Your task to perform on an android device: open a bookmark in the chrome app Image 0: 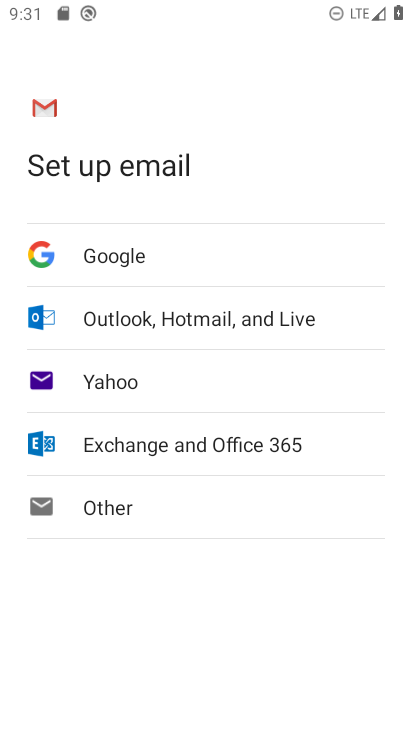
Step 0: press home button
Your task to perform on an android device: open a bookmark in the chrome app Image 1: 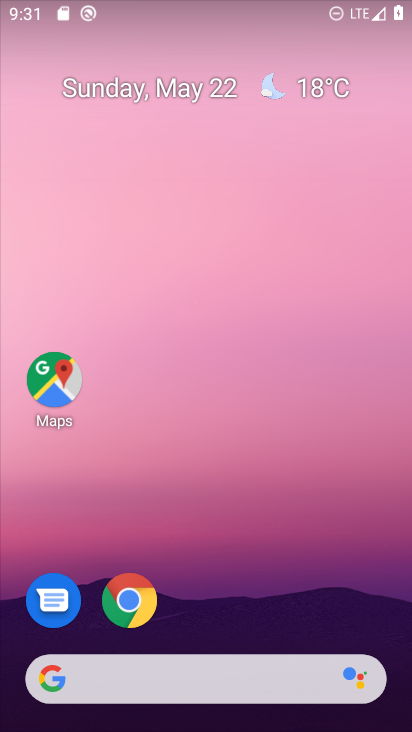
Step 1: drag from (392, 662) to (234, 53)
Your task to perform on an android device: open a bookmark in the chrome app Image 2: 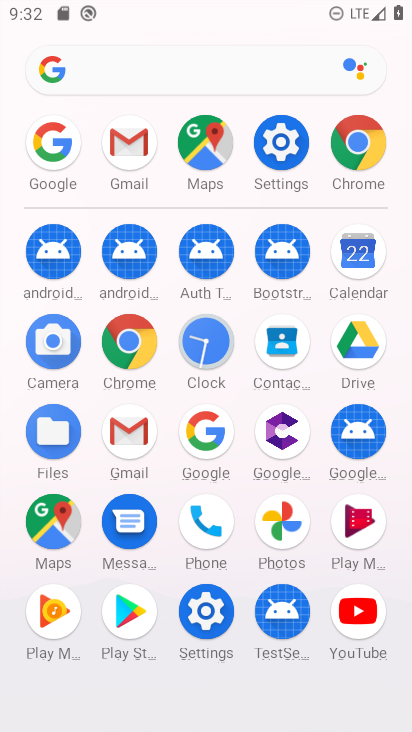
Step 2: click (368, 149)
Your task to perform on an android device: open a bookmark in the chrome app Image 3: 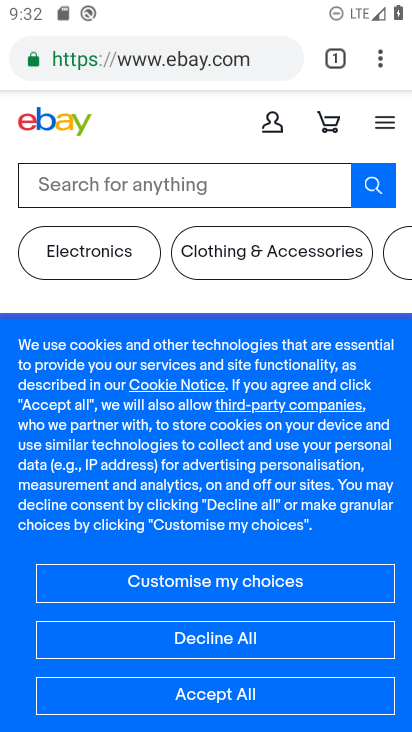
Step 3: press back button
Your task to perform on an android device: open a bookmark in the chrome app Image 4: 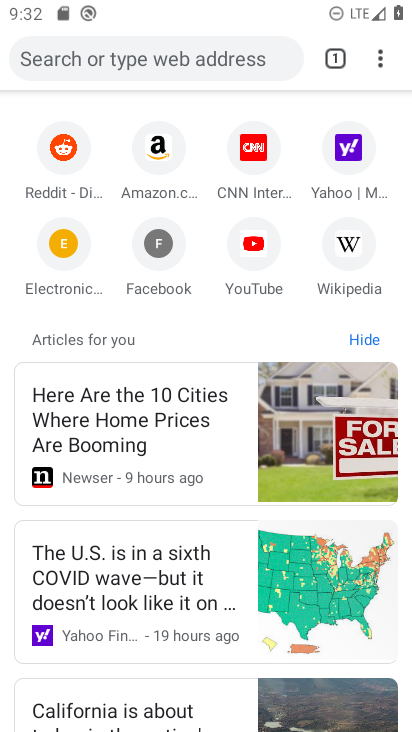
Step 4: click (379, 51)
Your task to perform on an android device: open a bookmark in the chrome app Image 5: 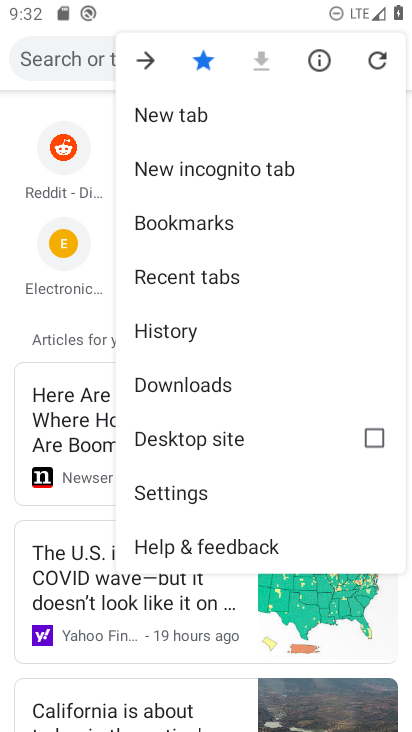
Step 5: click (226, 220)
Your task to perform on an android device: open a bookmark in the chrome app Image 6: 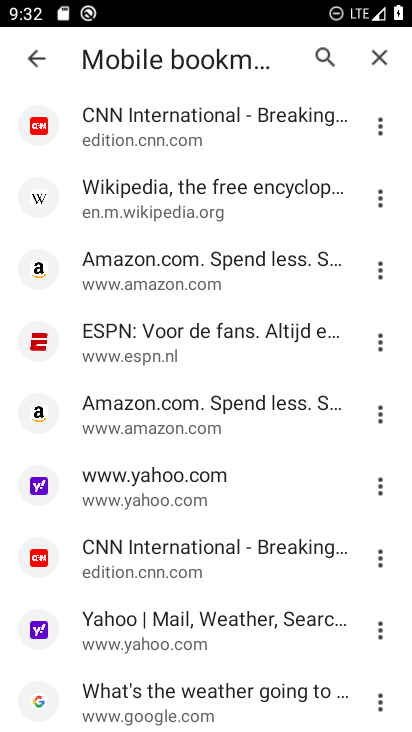
Step 6: task complete